Your task to perform on an android device: Go to CNN.com Image 0: 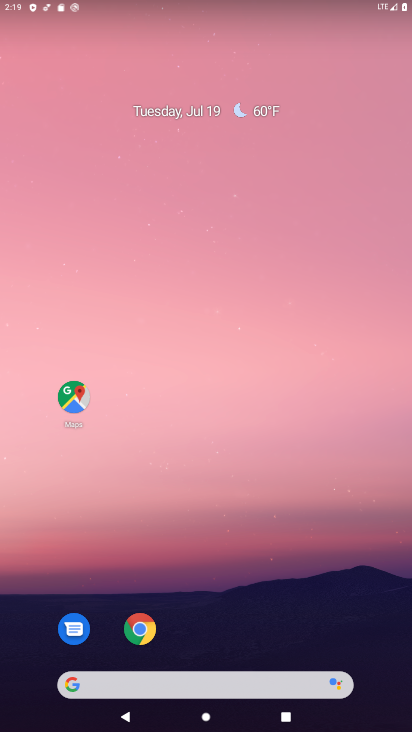
Step 0: click (143, 636)
Your task to perform on an android device: Go to CNN.com Image 1: 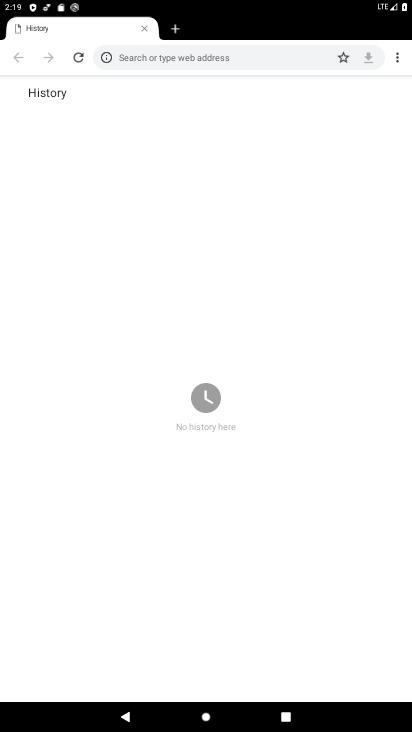
Step 1: click (177, 27)
Your task to perform on an android device: Go to CNN.com Image 2: 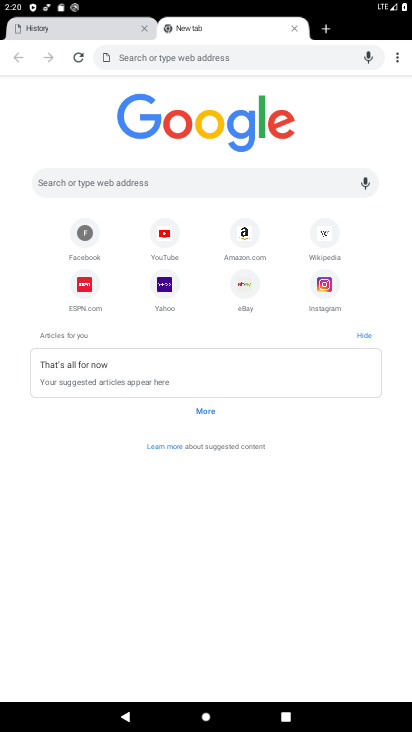
Step 2: click (179, 183)
Your task to perform on an android device: Go to CNN.com Image 3: 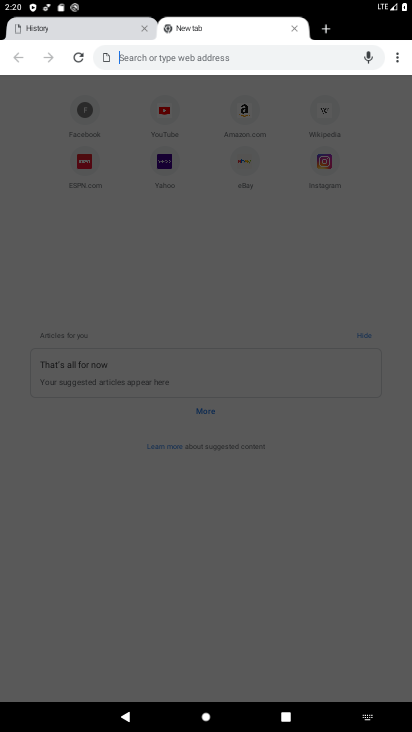
Step 3: type "CNN.com"
Your task to perform on an android device: Go to CNN.com Image 4: 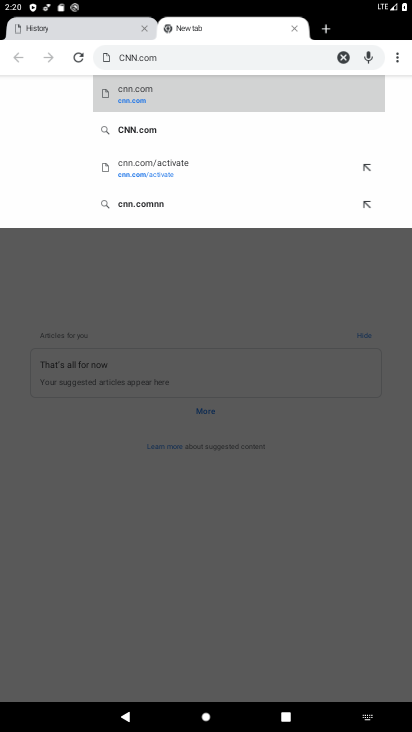
Step 4: click (207, 104)
Your task to perform on an android device: Go to CNN.com Image 5: 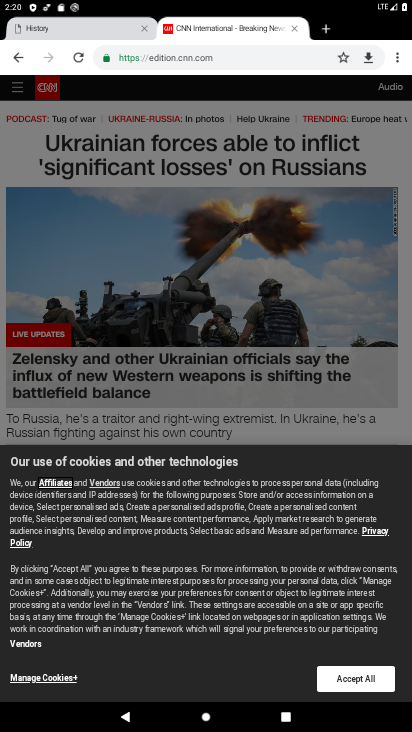
Step 5: task complete